Your task to perform on an android device: manage bookmarks in the chrome app Image 0: 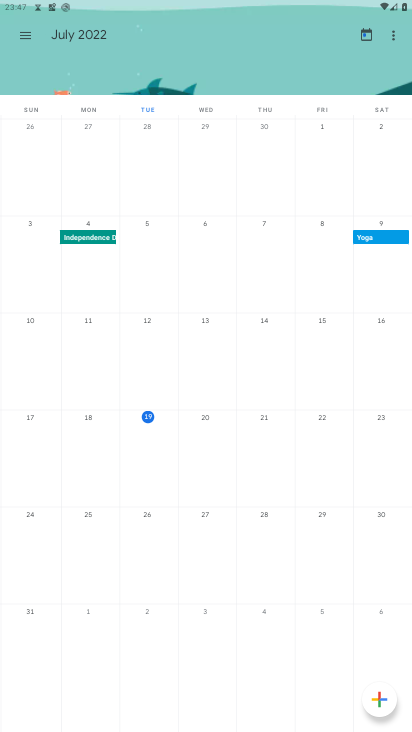
Step 0: press home button
Your task to perform on an android device: manage bookmarks in the chrome app Image 1: 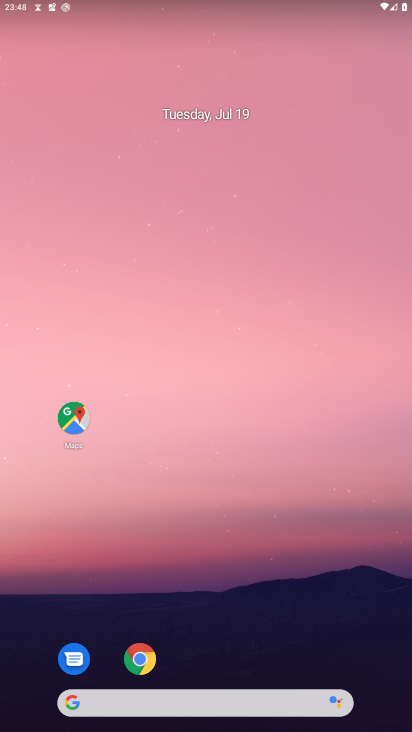
Step 1: click (145, 662)
Your task to perform on an android device: manage bookmarks in the chrome app Image 2: 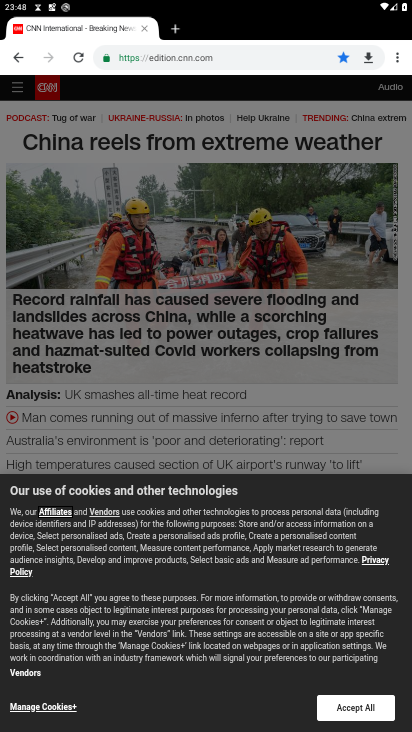
Step 2: click (396, 52)
Your task to perform on an android device: manage bookmarks in the chrome app Image 3: 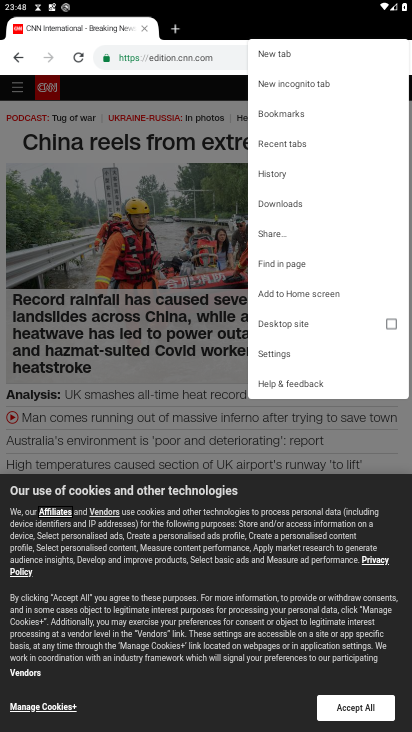
Step 3: click (284, 113)
Your task to perform on an android device: manage bookmarks in the chrome app Image 4: 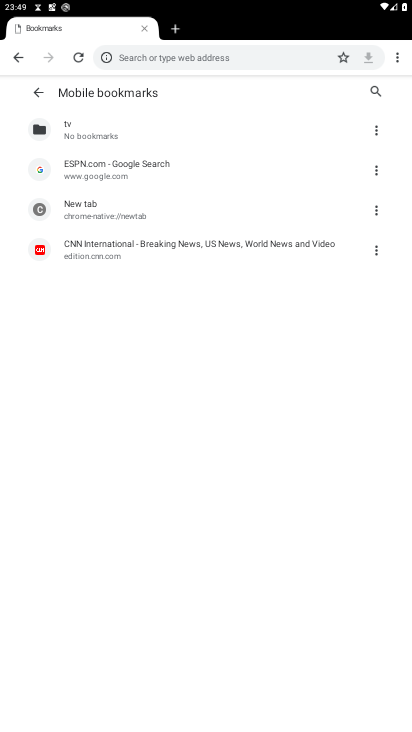
Step 4: click (394, 223)
Your task to perform on an android device: manage bookmarks in the chrome app Image 5: 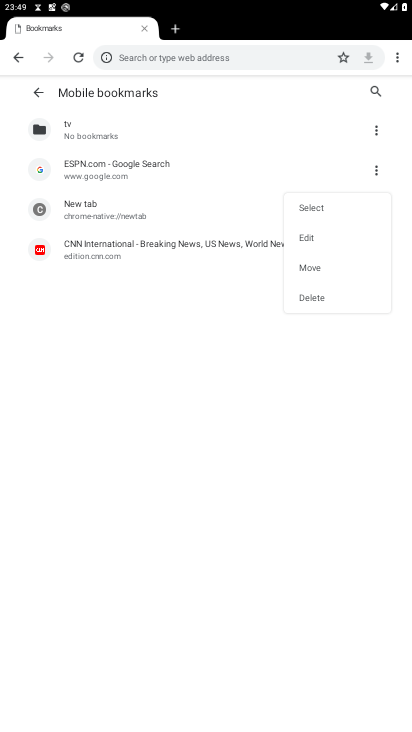
Step 5: drag from (405, 227) to (209, 276)
Your task to perform on an android device: manage bookmarks in the chrome app Image 6: 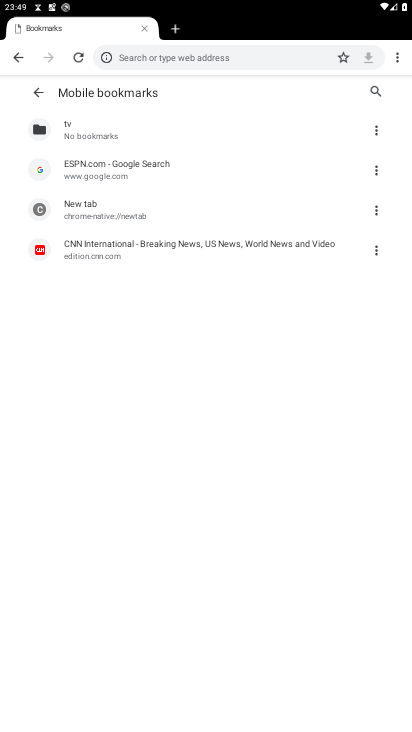
Step 6: click (185, 237)
Your task to perform on an android device: manage bookmarks in the chrome app Image 7: 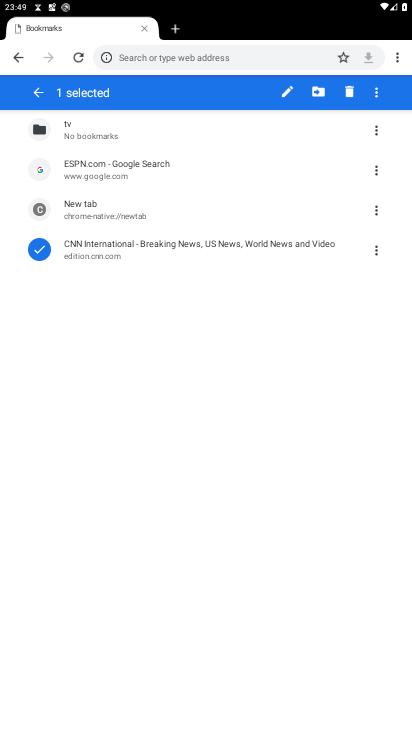
Step 7: drag from (88, 196) to (345, 92)
Your task to perform on an android device: manage bookmarks in the chrome app Image 8: 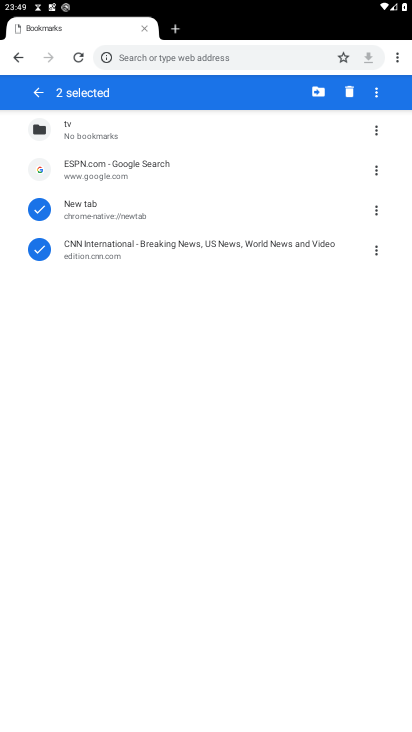
Step 8: click (355, 95)
Your task to perform on an android device: manage bookmarks in the chrome app Image 9: 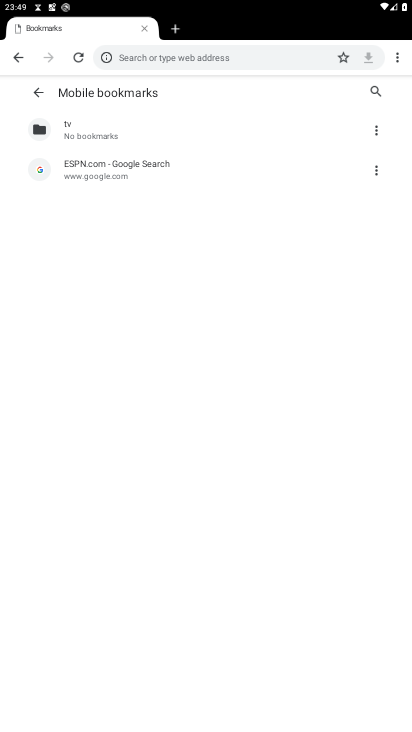
Step 9: task complete